Your task to perform on an android device: show emergency info Image 0: 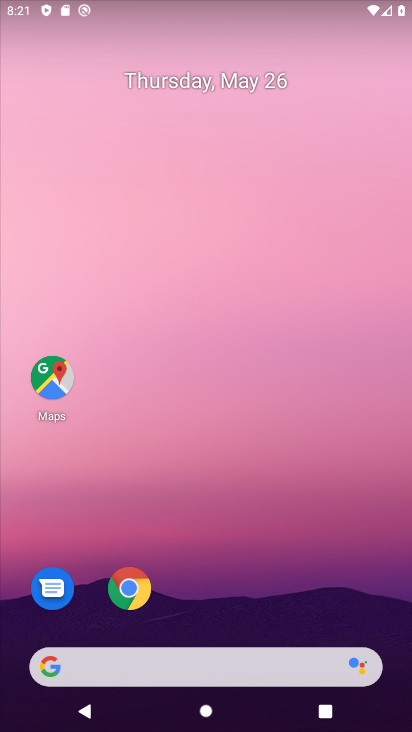
Step 0: drag from (390, 621) to (301, 20)
Your task to perform on an android device: show emergency info Image 1: 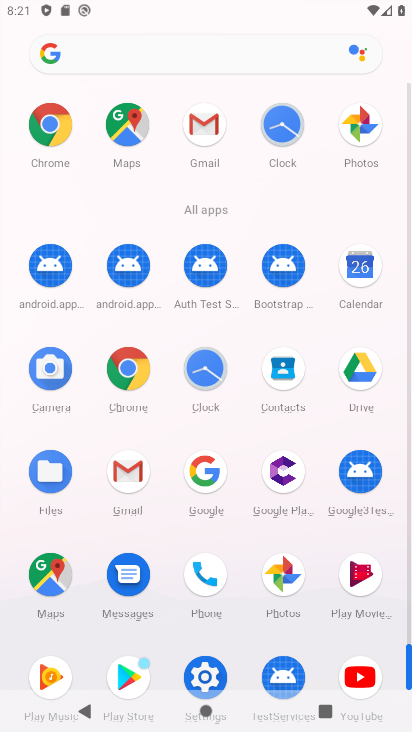
Step 1: click (201, 679)
Your task to perform on an android device: show emergency info Image 2: 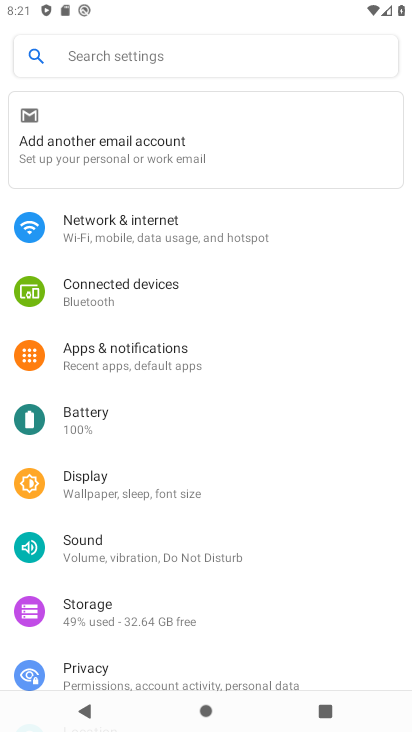
Step 2: drag from (283, 637) to (318, 176)
Your task to perform on an android device: show emergency info Image 3: 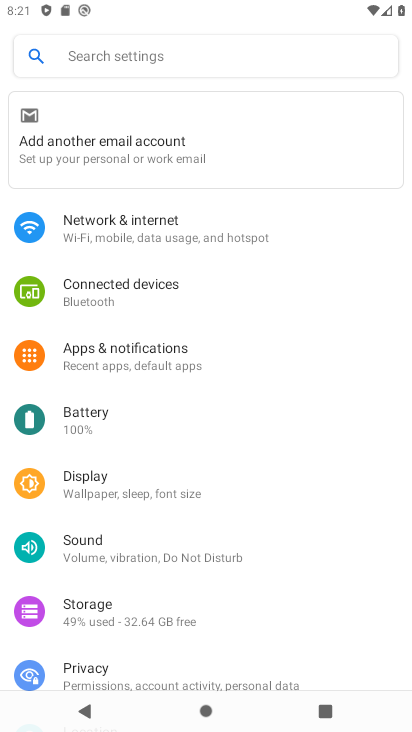
Step 3: drag from (346, 638) to (287, 21)
Your task to perform on an android device: show emergency info Image 4: 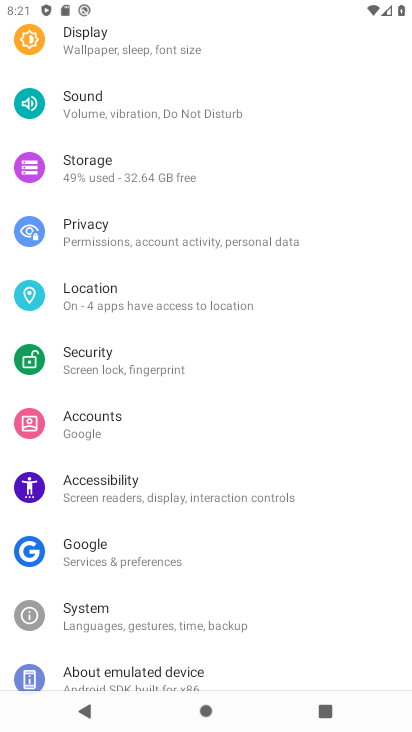
Step 4: drag from (271, 603) to (351, 23)
Your task to perform on an android device: show emergency info Image 5: 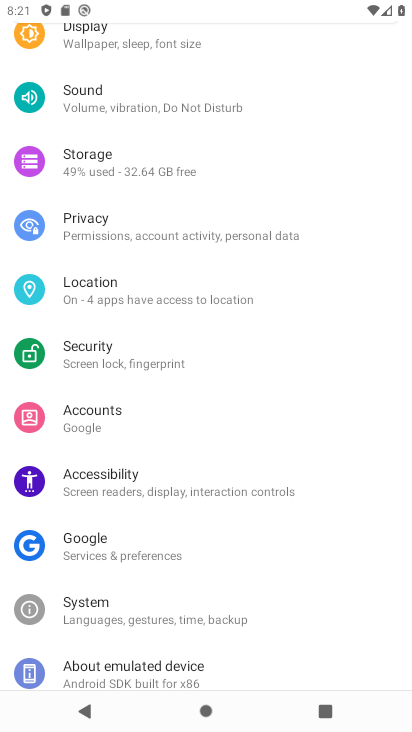
Step 5: click (118, 660)
Your task to perform on an android device: show emergency info Image 6: 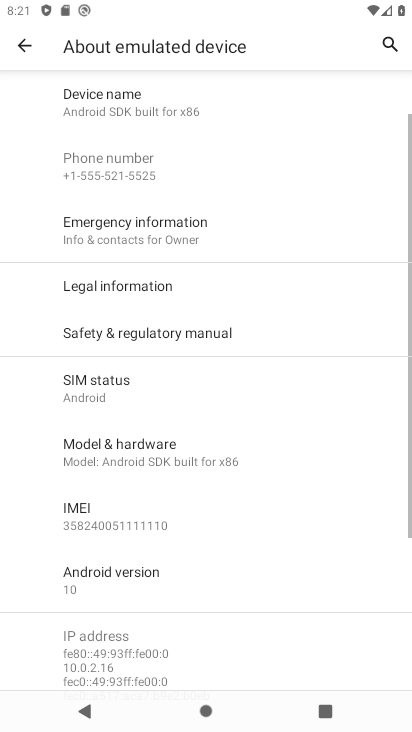
Step 6: click (158, 234)
Your task to perform on an android device: show emergency info Image 7: 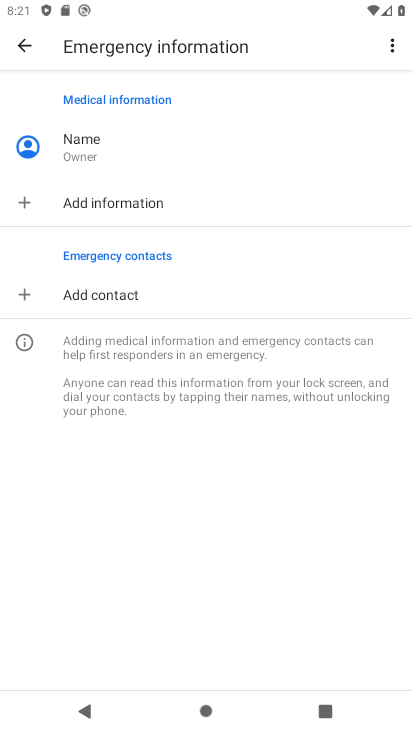
Step 7: task complete